Your task to perform on an android device: Open privacy settings Image 0: 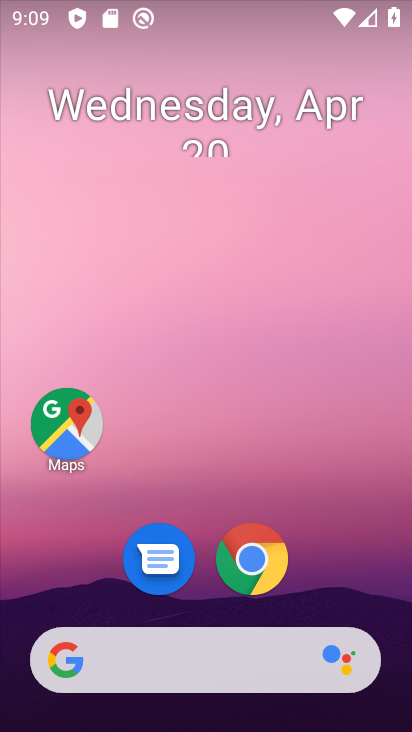
Step 0: click (271, 555)
Your task to perform on an android device: Open privacy settings Image 1: 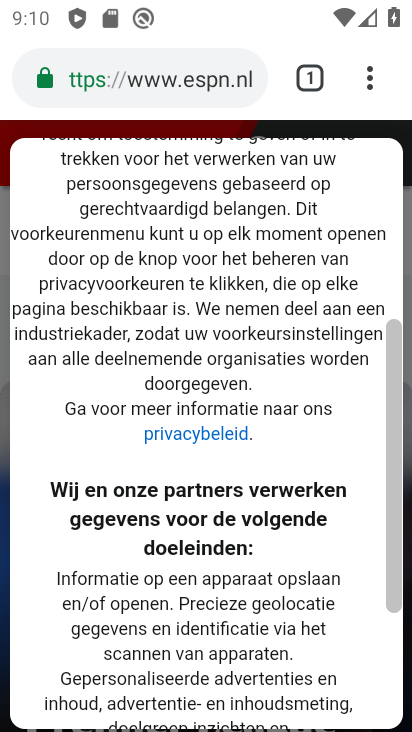
Step 1: click (367, 64)
Your task to perform on an android device: Open privacy settings Image 2: 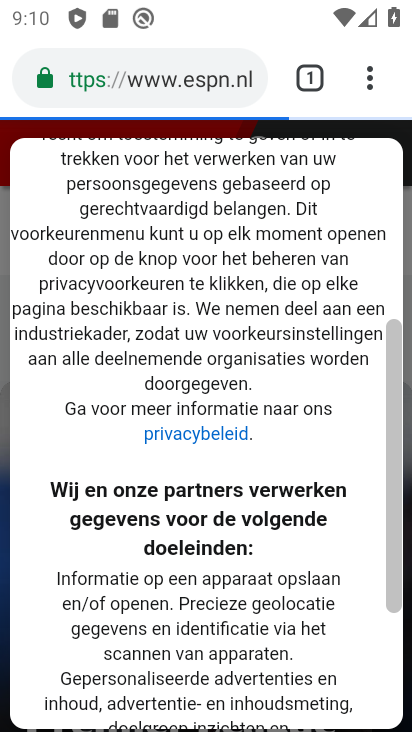
Step 2: drag from (367, 64) to (109, 617)
Your task to perform on an android device: Open privacy settings Image 3: 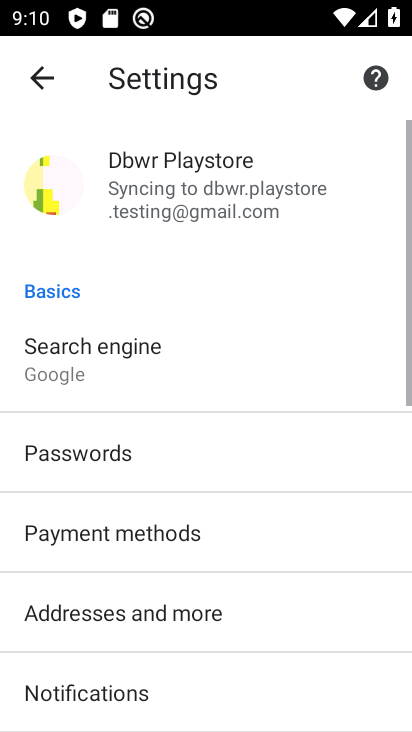
Step 3: drag from (149, 680) to (162, 315)
Your task to perform on an android device: Open privacy settings Image 4: 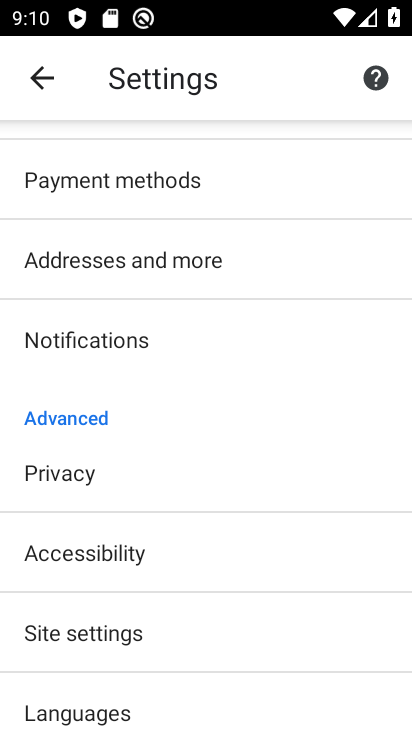
Step 4: click (88, 459)
Your task to perform on an android device: Open privacy settings Image 5: 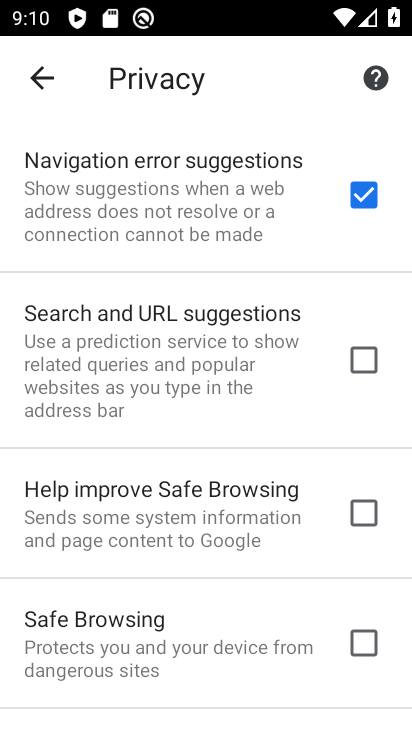
Step 5: task complete